Your task to perform on an android device: change the clock style Image 0: 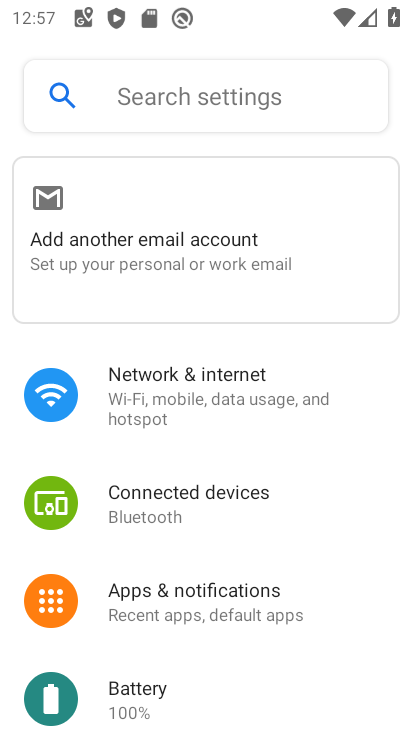
Step 0: press home button
Your task to perform on an android device: change the clock style Image 1: 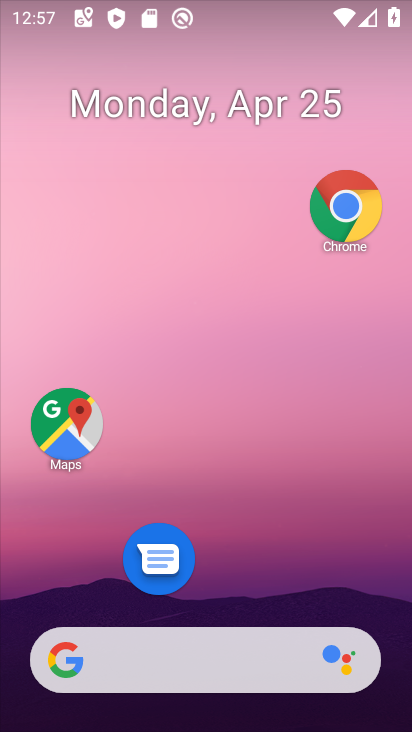
Step 1: drag from (181, 610) to (266, 87)
Your task to perform on an android device: change the clock style Image 2: 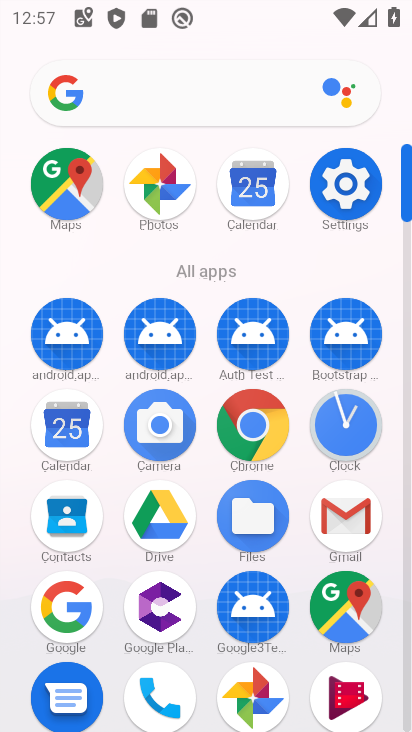
Step 2: click (347, 424)
Your task to perform on an android device: change the clock style Image 3: 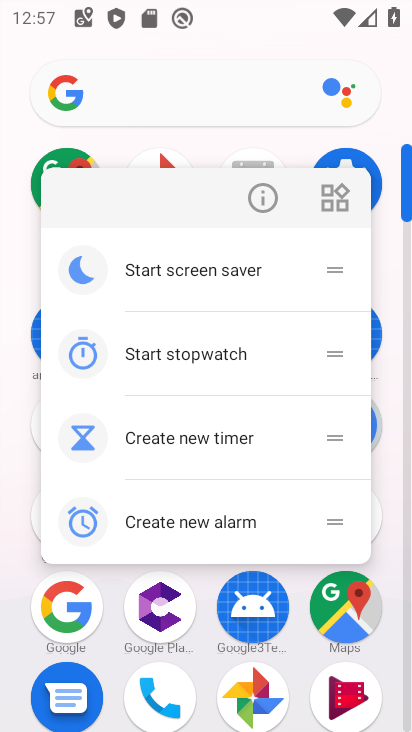
Step 3: click (378, 423)
Your task to perform on an android device: change the clock style Image 4: 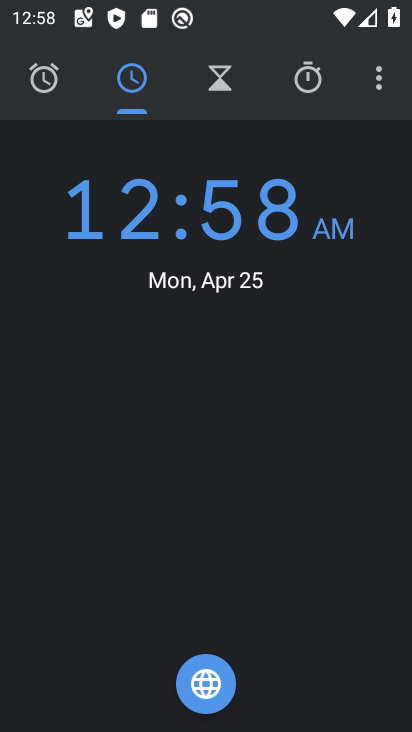
Step 4: click (378, 71)
Your task to perform on an android device: change the clock style Image 5: 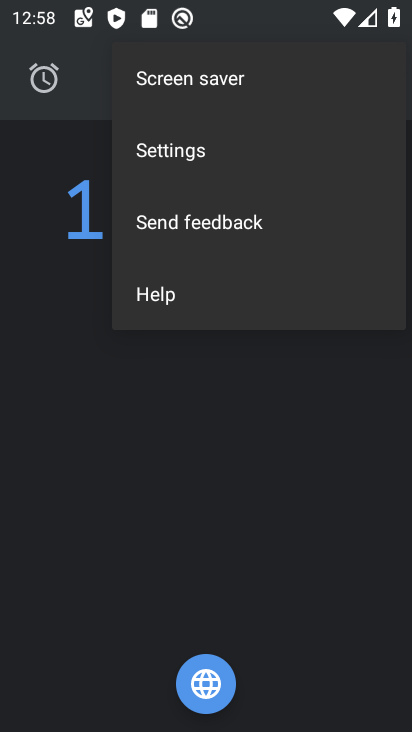
Step 5: click (194, 147)
Your task to perform on an android device: change the clock style Image 6: 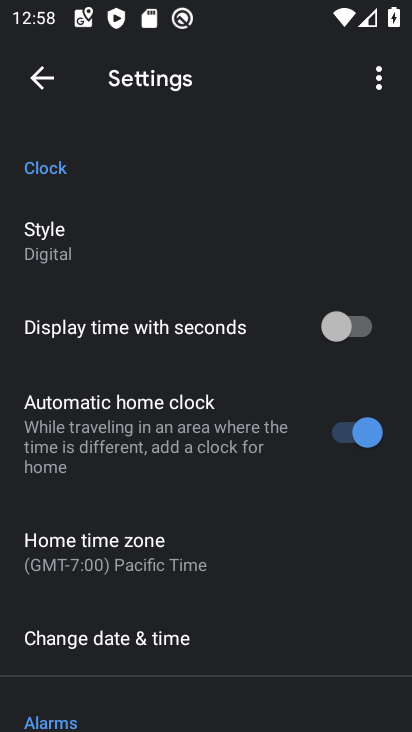
Step 6: click (87, 234)
Your task to perform on an android device: change the clock style Image 7: 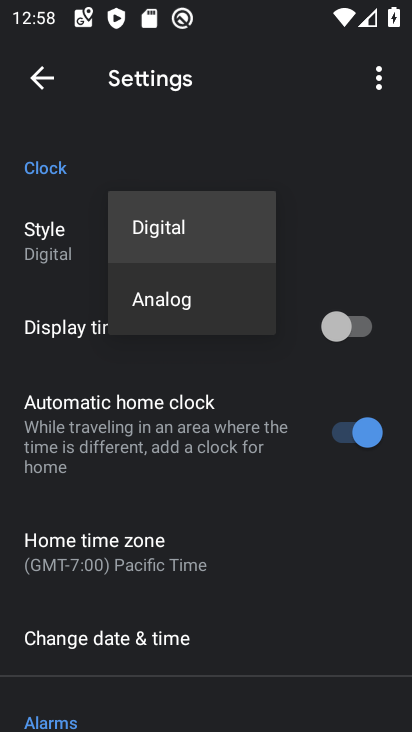
Step 7: click (173, 305)
Your task to perform on an android device: change the clock style Image 8: 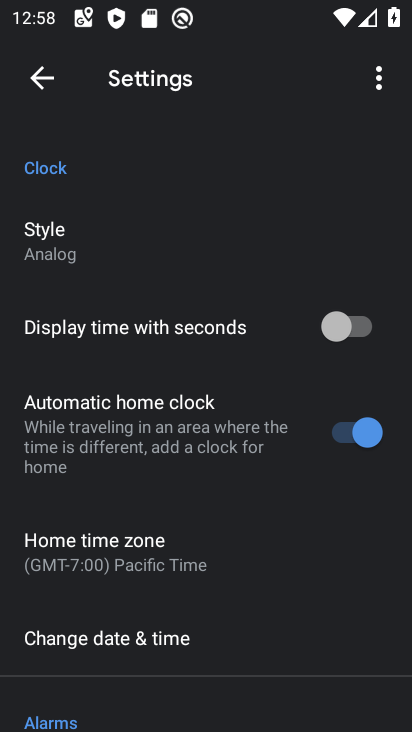
Step 8: task complete